Your task to perform on an android device: When is my next meeting? Image 0: 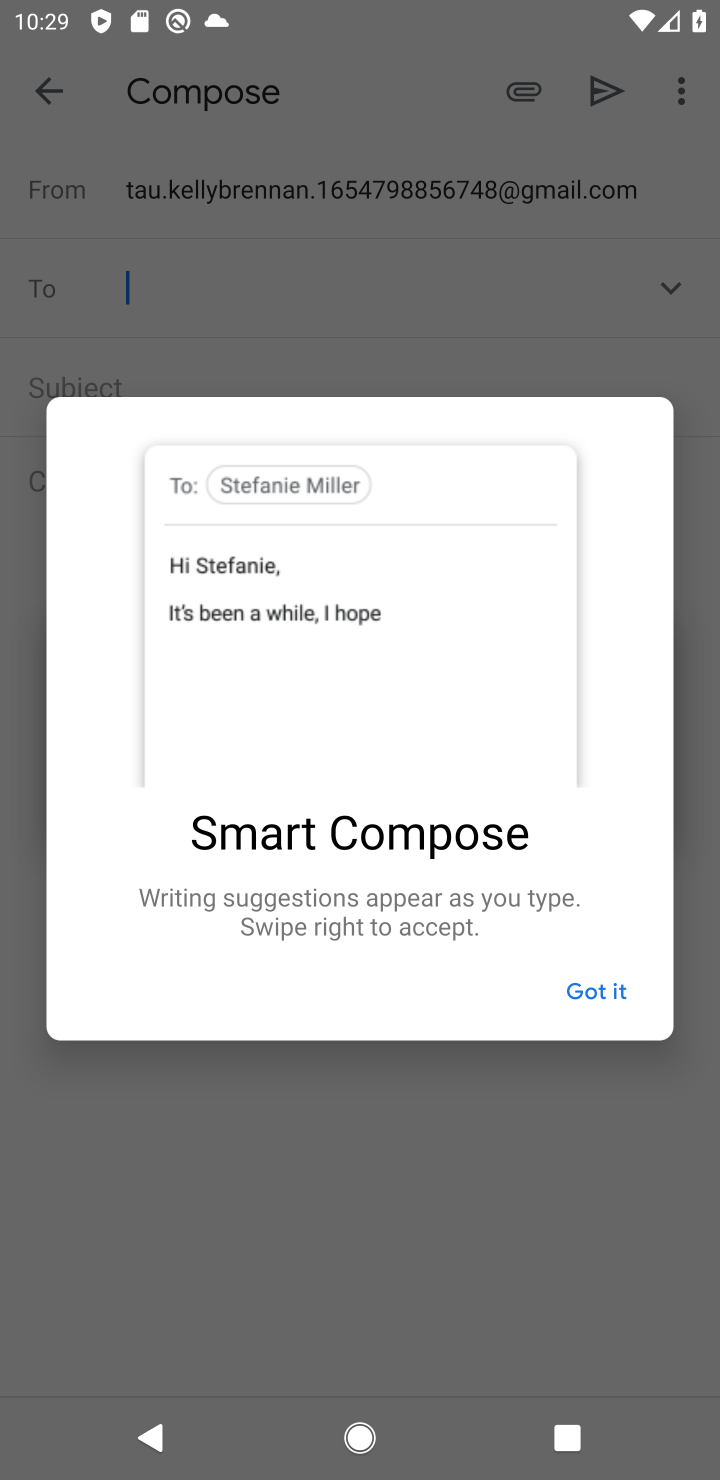
Step 0: press home button
Your task to perform on an android device: When is my next meeting? Image 1: 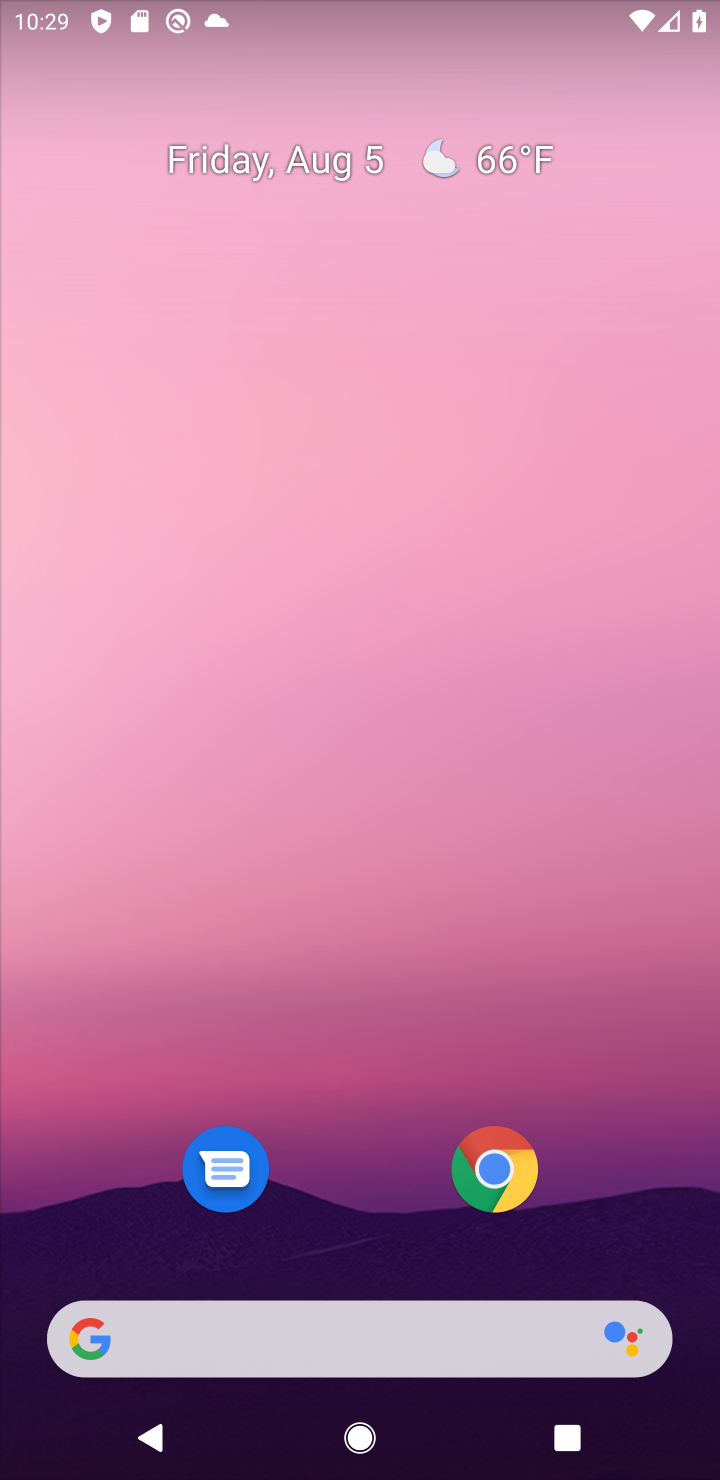
Step 1: drag from (666, 1229) to (604, 336)
Your task to perform on an android device: When is my next meeting? Image 2: 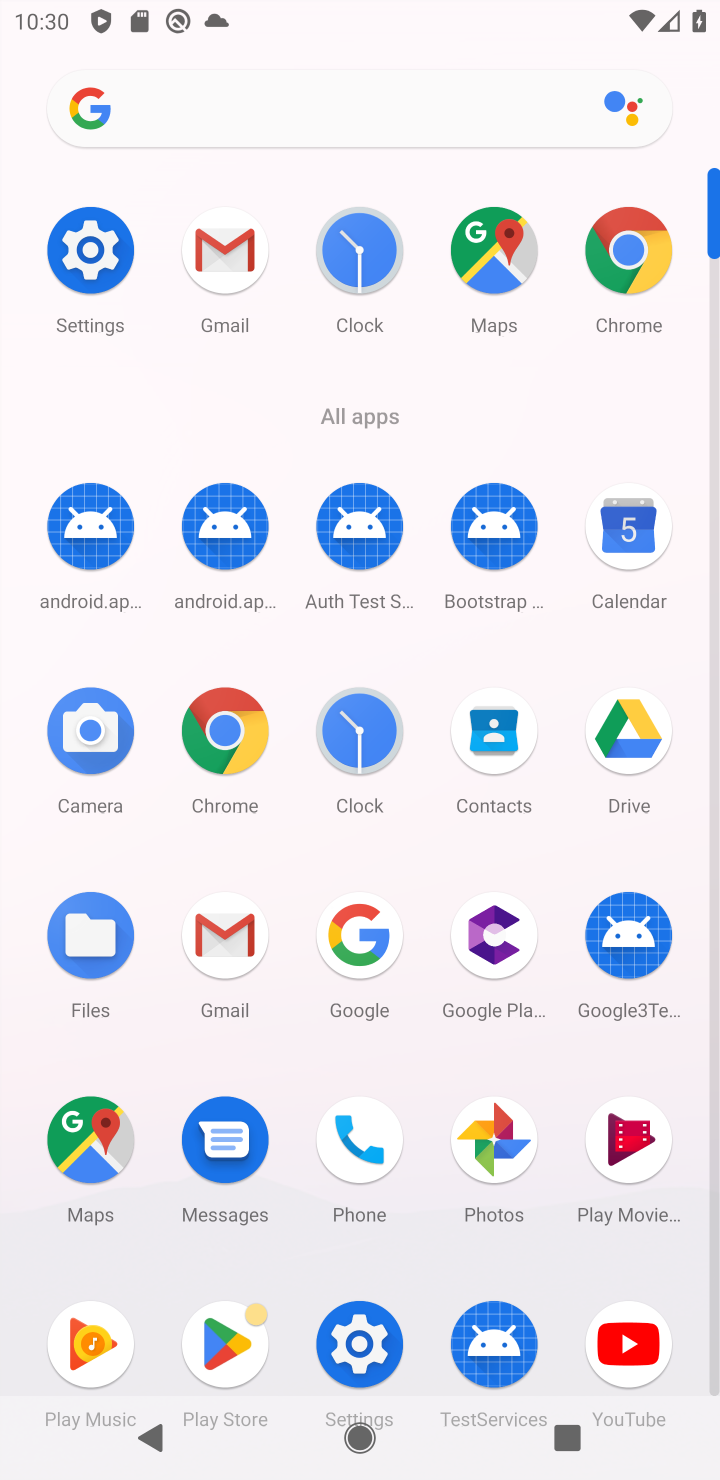
Step 2: click (622, 533)
Your task to perform on an android device: When is my next meeting? Image 3: 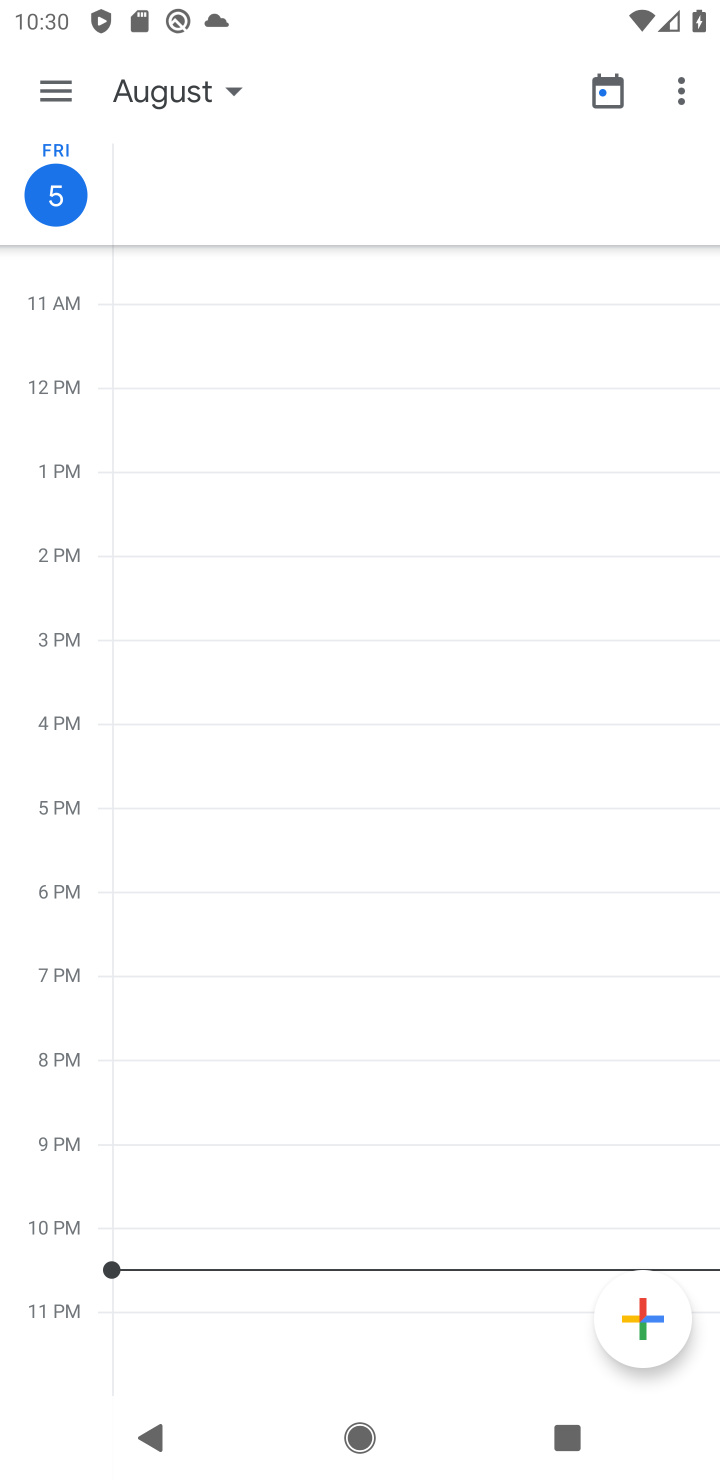
Step 3: click (46, 93)
Your task to perform on an android device: When is my next meeting? Image 4: 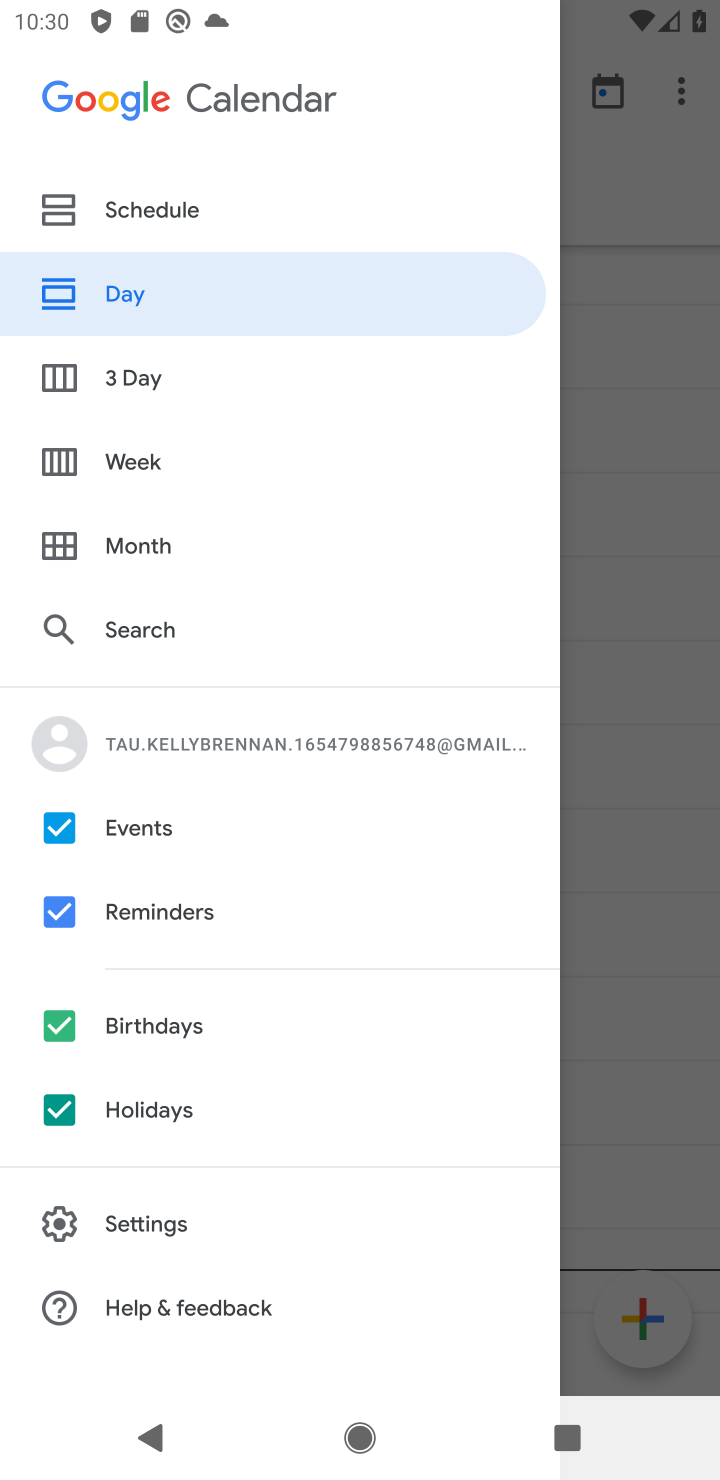
Step 4: click (146, 203)
Your task to perform on an android device: When is my next meeting? Image 5: 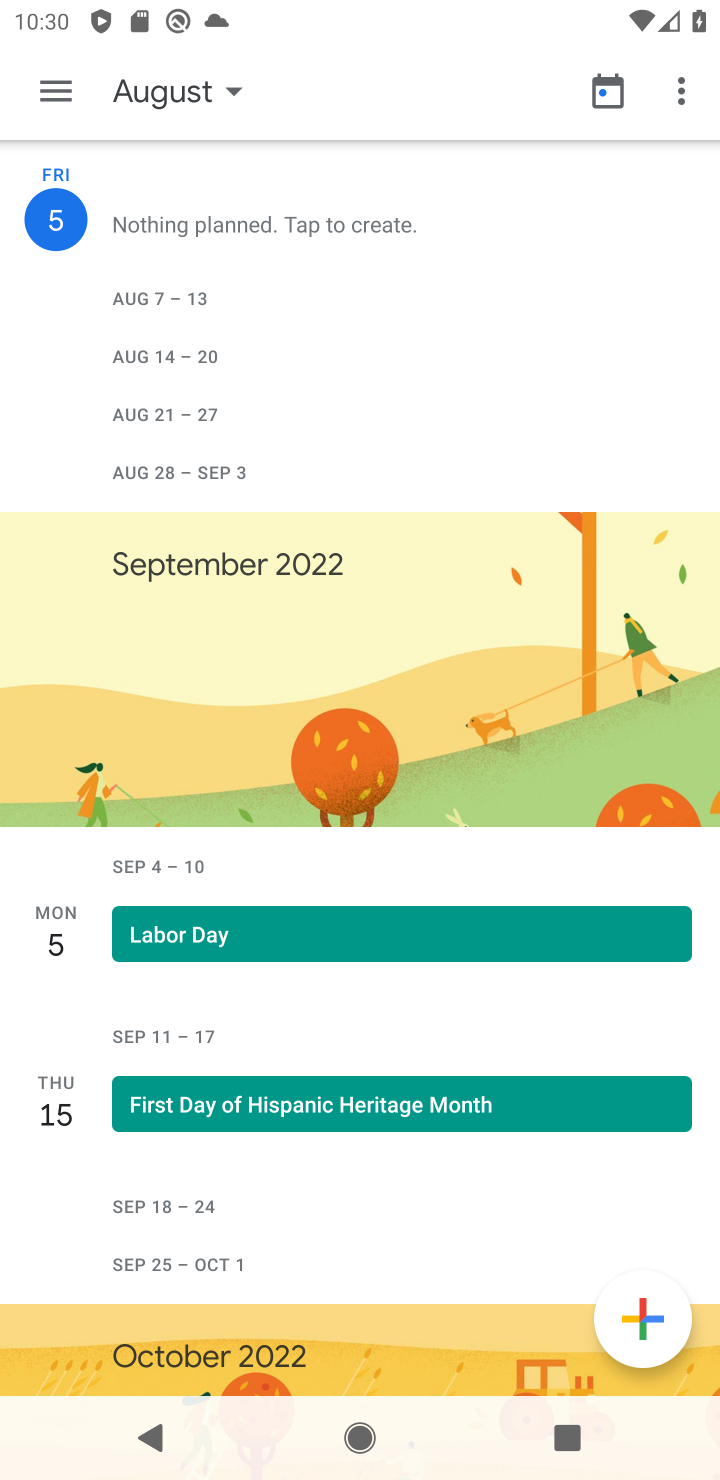
Step 5: task complete